Your task to perform on an android device: Go to notification settings Image 0: 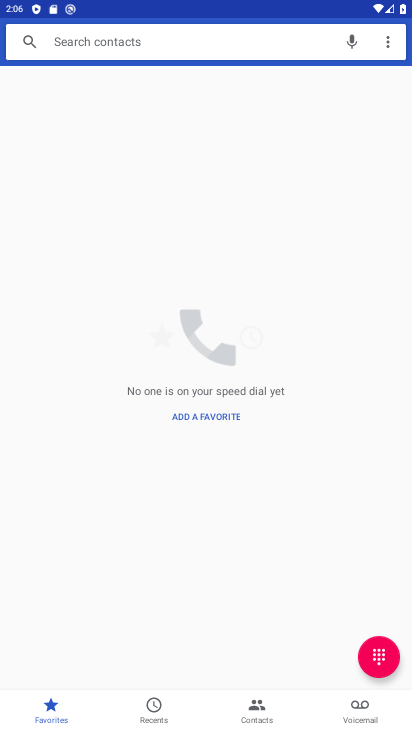
Step 0: press home button
Your task to perform on an android device: Go to notification settings Image 1: 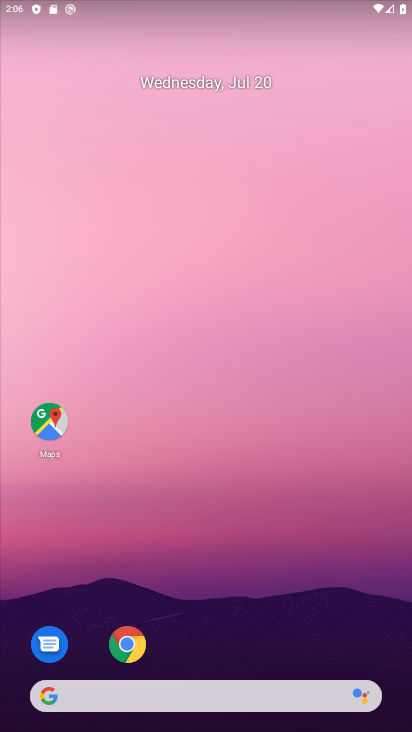
Step 1: drag from (266, 617) to (334, 252)
Your task to perform on an android device: Go to notification settings Image 2: 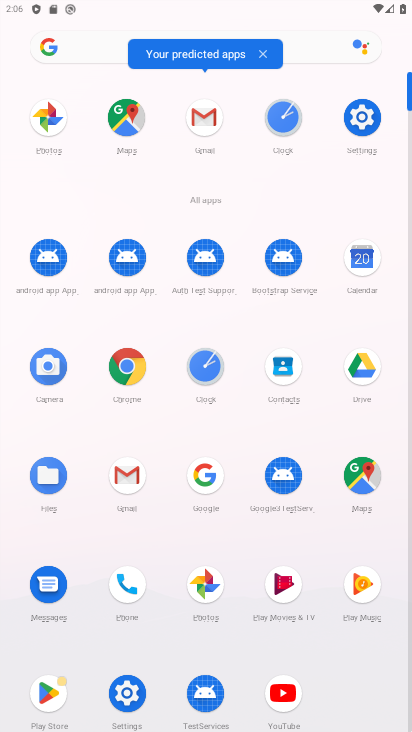
Step 2: click (127, 702)
Your task to perform on an android device: Go to notification settings Image 3: 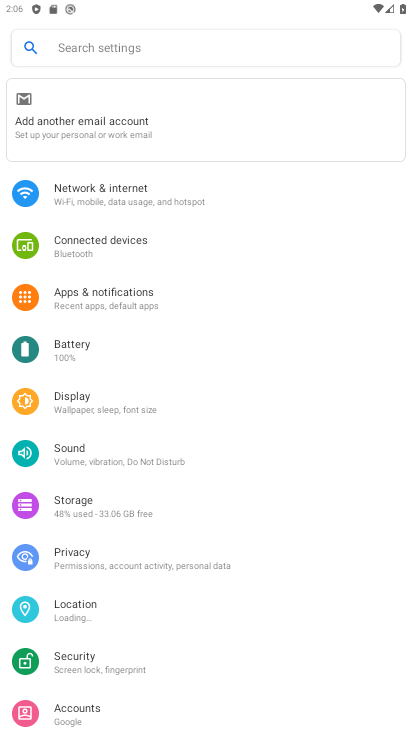
Step 3: click (125, 295)
Your task to perform on an android device: Go to notification settings Image 4: 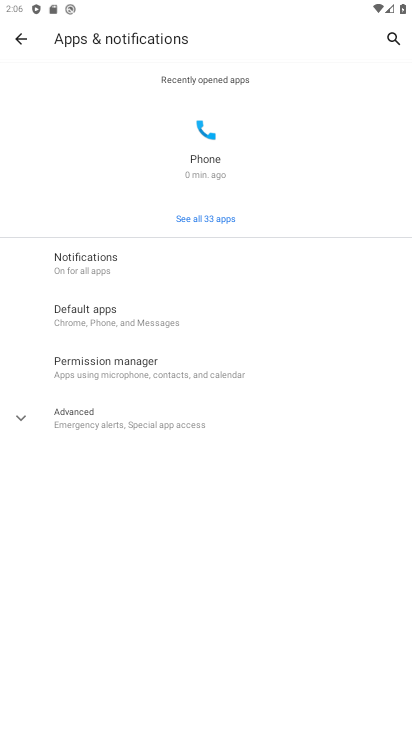
Step 4: click (145, 272)
Your task to perform on an android device: Go to notification settings Image 5: 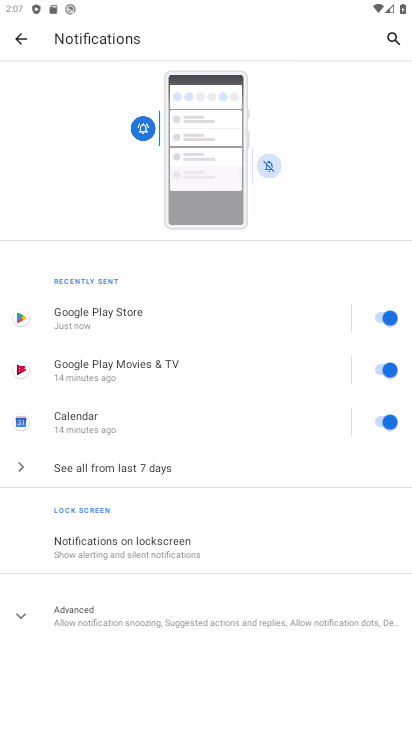
Step 5: task complete